Your task to perform on an android device: Search for "logitech g903" on ebay, select the first entry, and add it to the cart. Image 0: 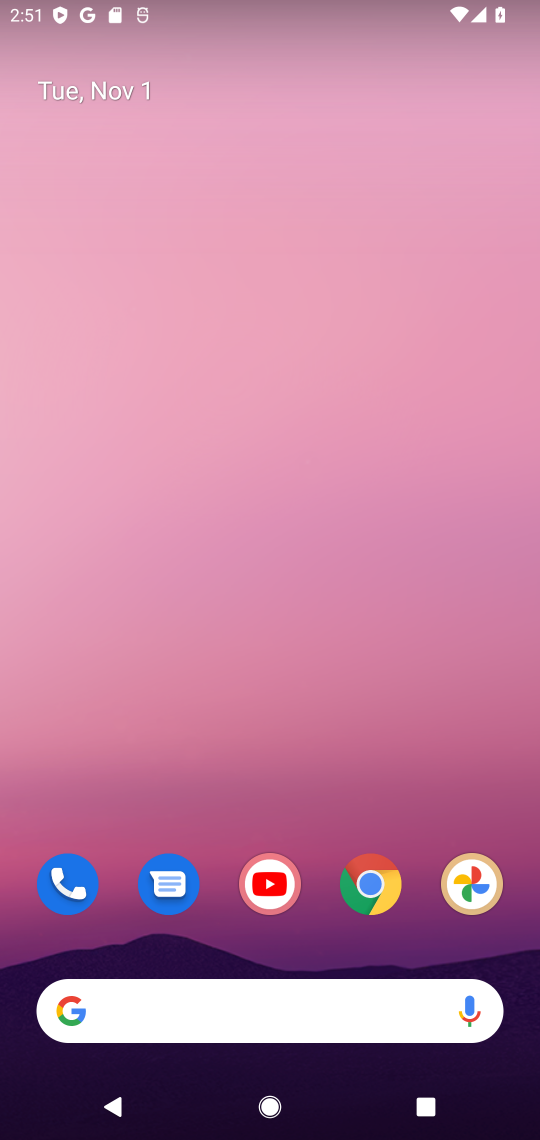
Step 0: drag from (247, 982) to (345, 95)
Your task to perform on an android device: Search for "logitech g903" on ebay, select the first entry, and add it to the cart. Image 1: 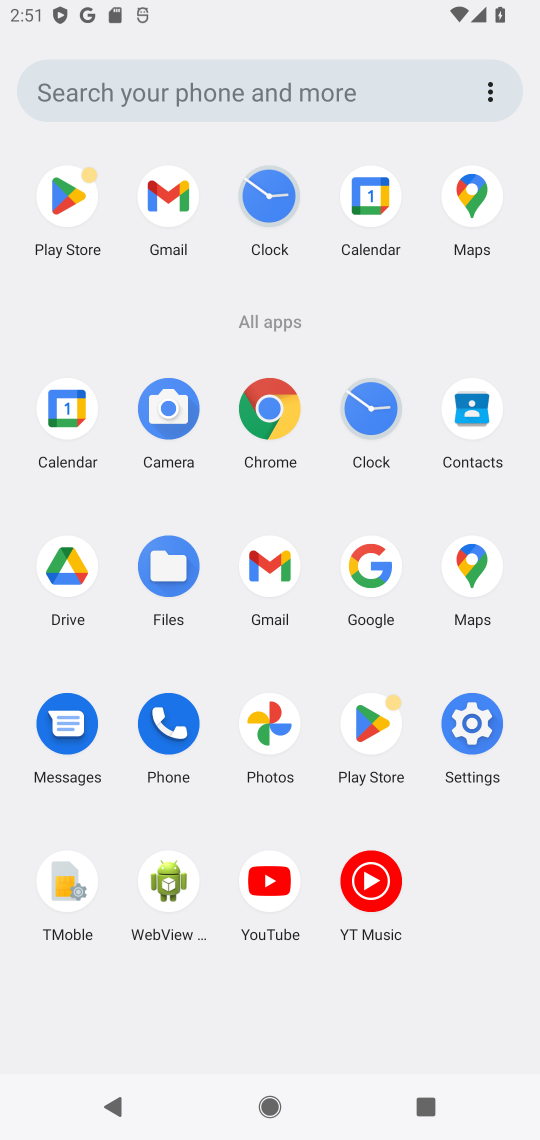
Step 1: click (284, 392)
Your task to perform on an android device: Search for "logitech g903" on ebay, select the first entry, and add it to the cart. Image 2: 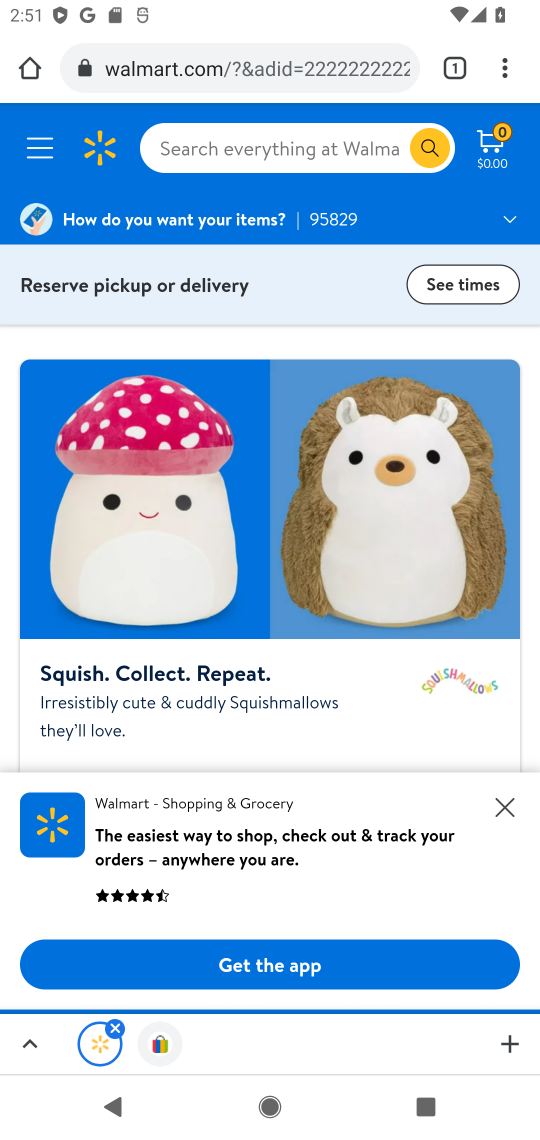
Step 2: click (242, 56)
Your task to perform on an android device: Search for "logitech g903" on ebay, select the first entry, and add it to the cart. Image 3: 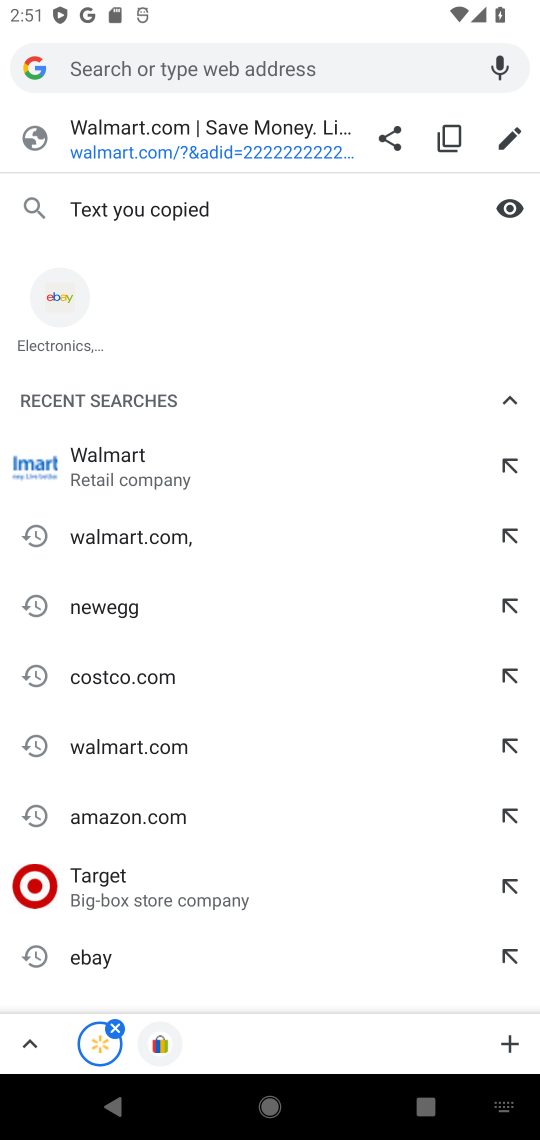
Step 3: type "ebay"
Your task to perform on an android device: Search for "logitech g903" on ebay, select the first entry, and add it to the cart. Image 4: 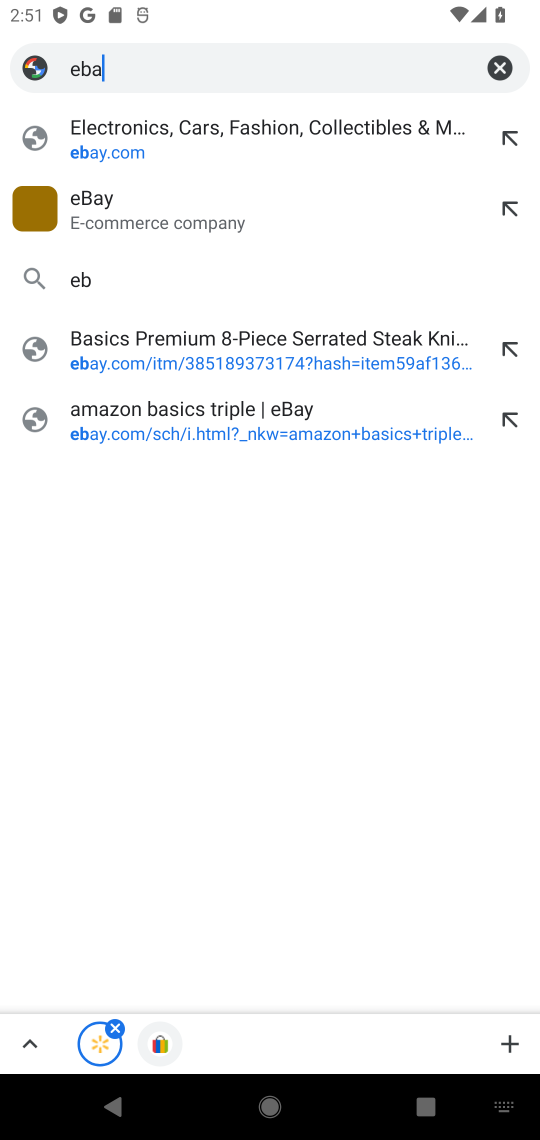
Step 4: press enter
Your task to perform on an android device: Search for "logitech g903" on ebay, select the first entry, and add it to the cart. Image 5: 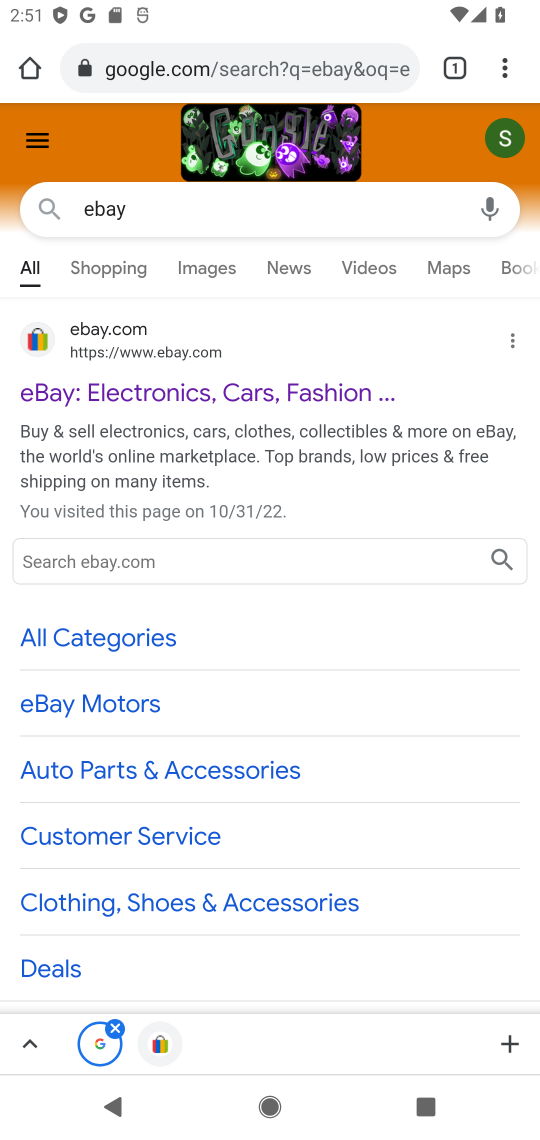
Step 5: click (166, 405)
Your task to perform on an android device: Search for "logitech g903" on ebay, select the first entry, and add it to the cart. Image 6: 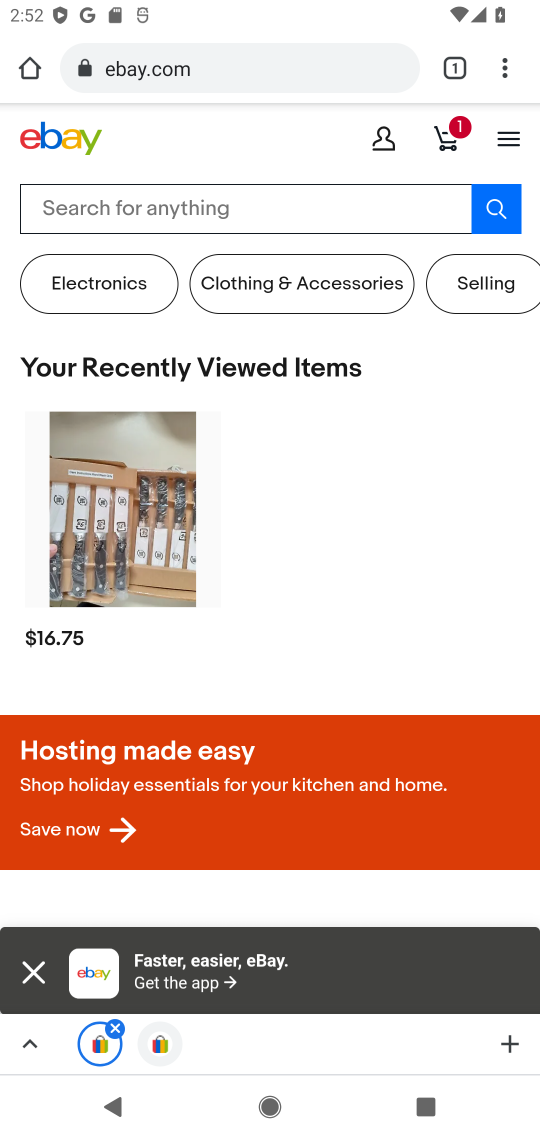
Step 6: click (95, 199)
Your task to perform on an android device: Search for "logitech g903" on ebay, select the first entry, and add it to the cart. Image 7: 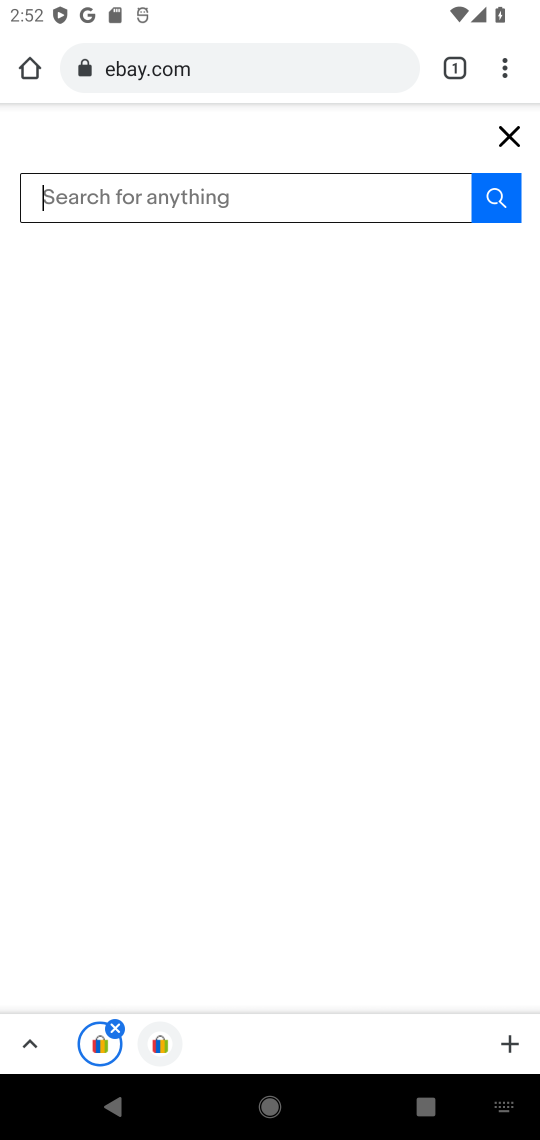
Step 7: type "logitech g903"
Your task to perform on an android device: Search for "logitech g903" on ebay, select the first entry, and add it to the cart. Image 8: 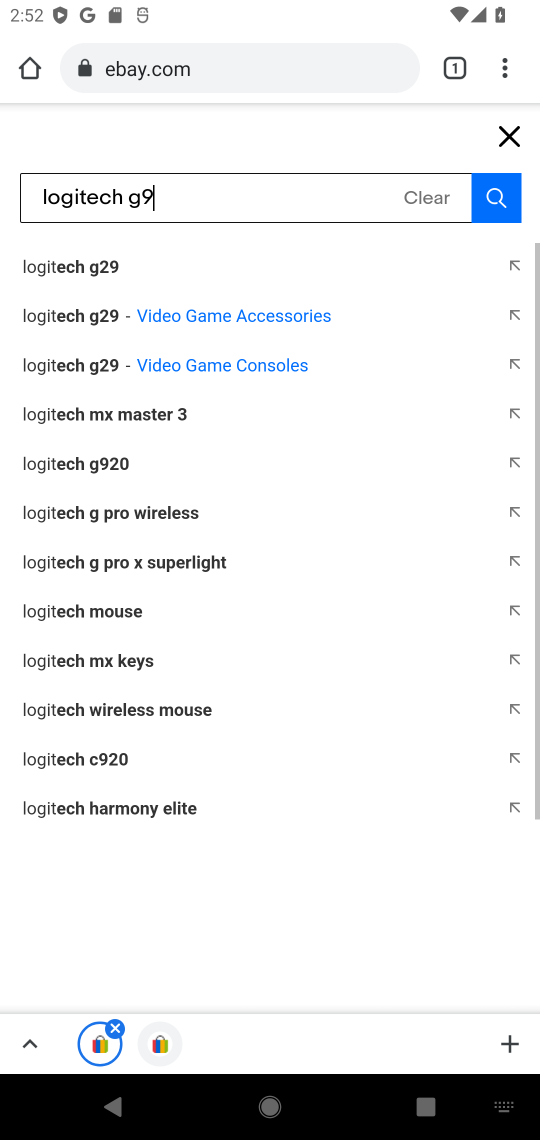
Step 8: press enter
Your task to perform on an android device: Search for "logitech g903" on ebay, select the first entry, and add it to the cart. Image 9: 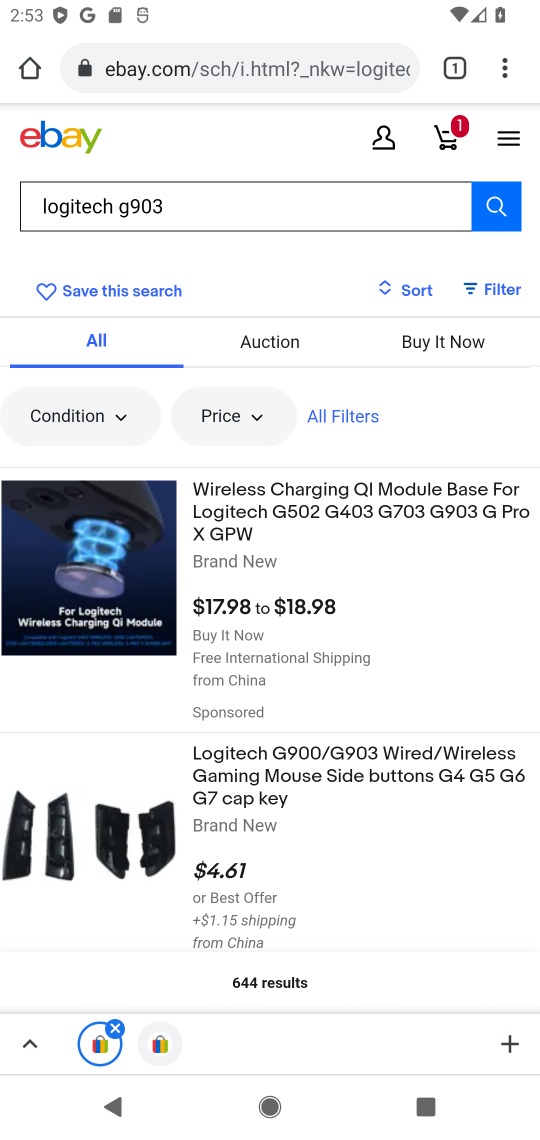
Step 9: click (264, 555)
Your task to perform on an android device: Search for "logitech g903" on ebay, select the first entry, and add it to the cart. Image 10: 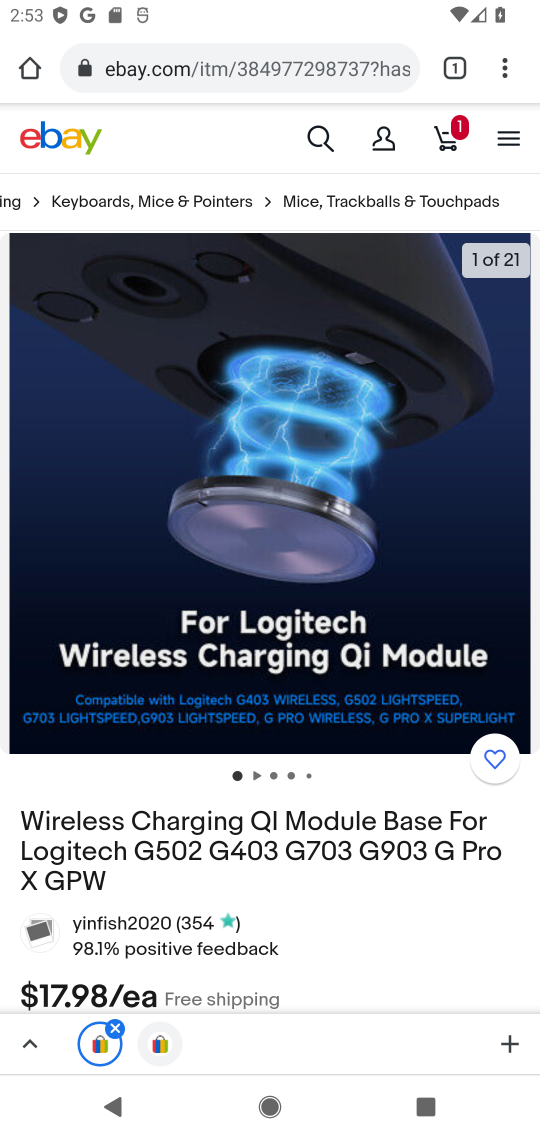
Step 10: drag from (290, 824) to (357, 367)
Your task to perform on an android device: Search for "logitech g903" on ebay, select the first entry, and add it to the cart. Image 11: 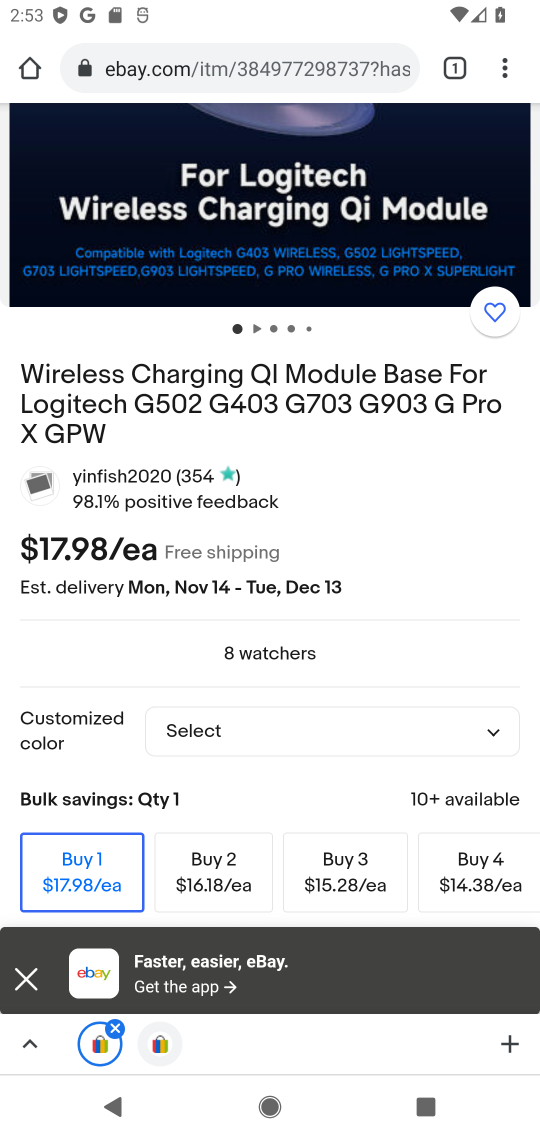
Step 11: drag from (311, 621) to (414, 242)
Your task to perform on an android device: Search for "logitech g903" on ebay, select the first entry, and add it to the cart. Image 12: 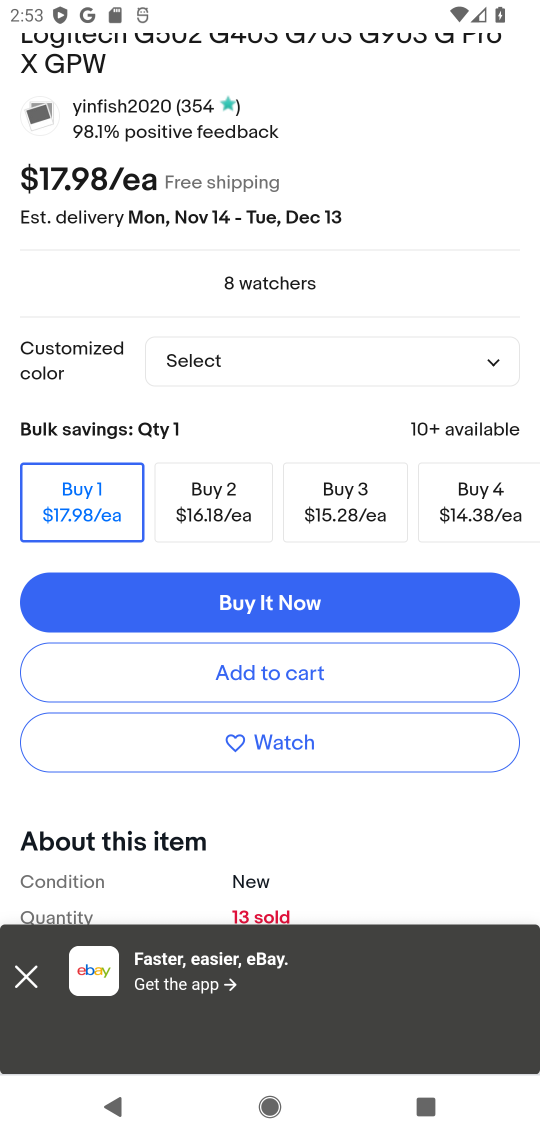
Step 12: click (217, 663)
Your task to perform on an android device: Search for "logitech g903" on ebay, select the first entry, and add it to the cart. Image 13: 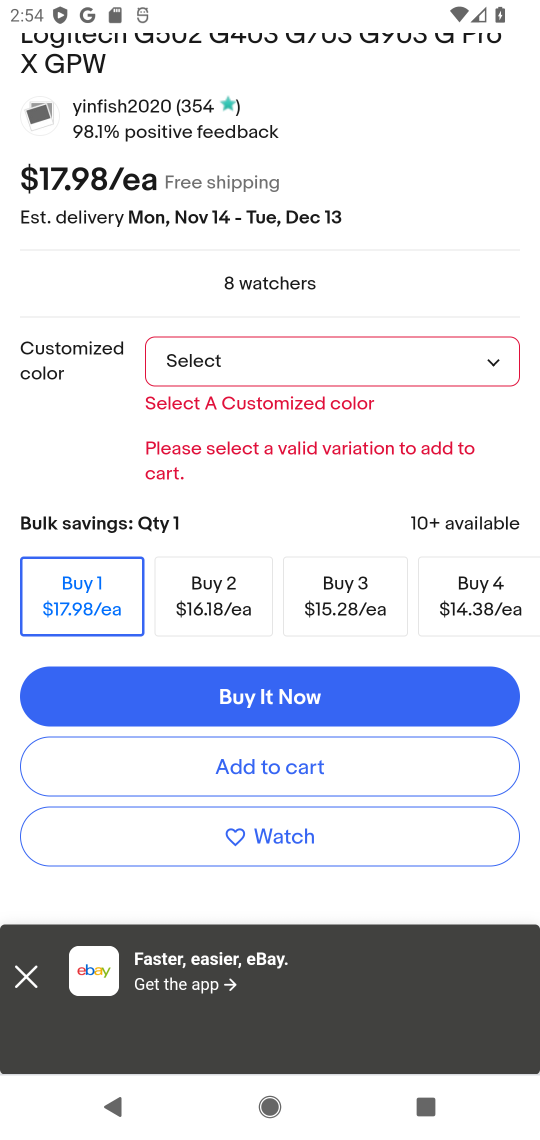
Step 13: click (280, 774)
Your task to perform on an android device: Search for "logitech g903" on ebay, select the first entry, and add it to the cart. Image 14: 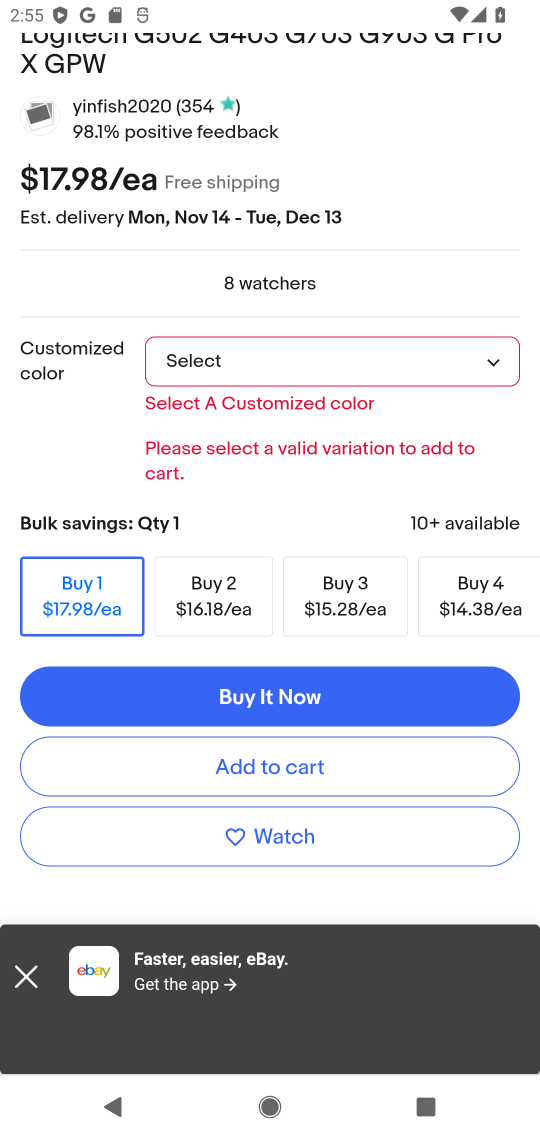
Step 14: click (309, 775)
Your task to perform on an android device: Search for "logitech g903" on ebay, select the first entry, and add it to the cart. Image 15: 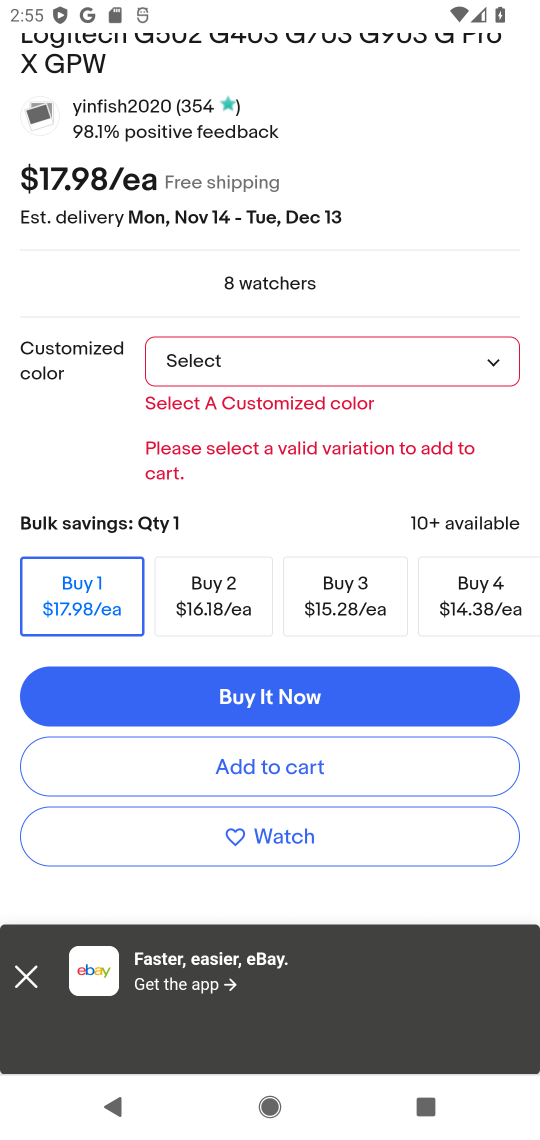
Step 15: click (201, 757)
Your task to perform on an android device: Search for "logitech g903" on ebay, select the first entry, and add it to the cart. Image 16: 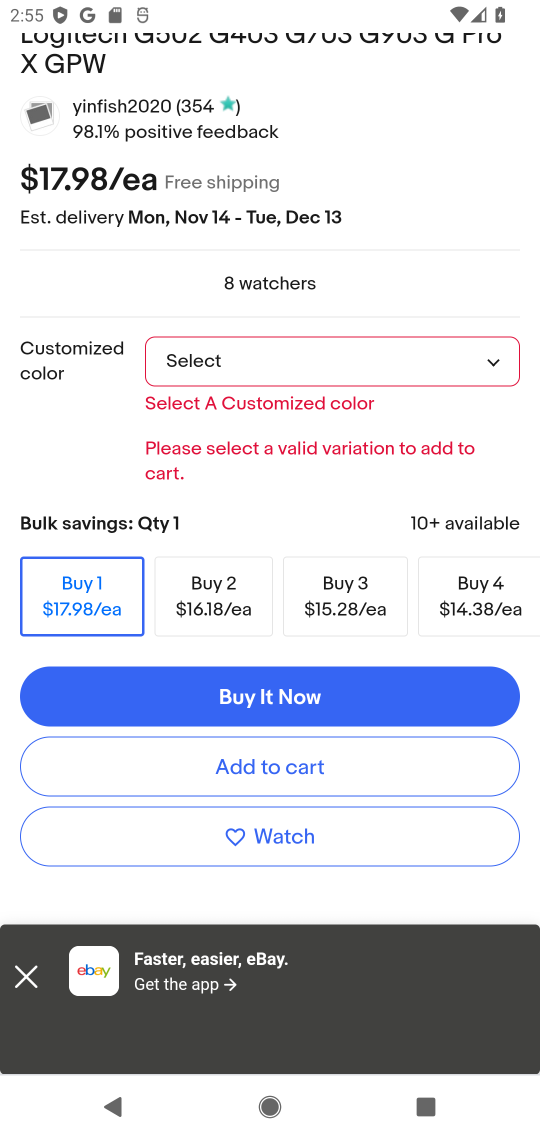
Step 16: click (209, 764)
Your task to perform on an android device: Search for "logitech g903" on ebay, select the first entry, and add it to the cart. Image 17: 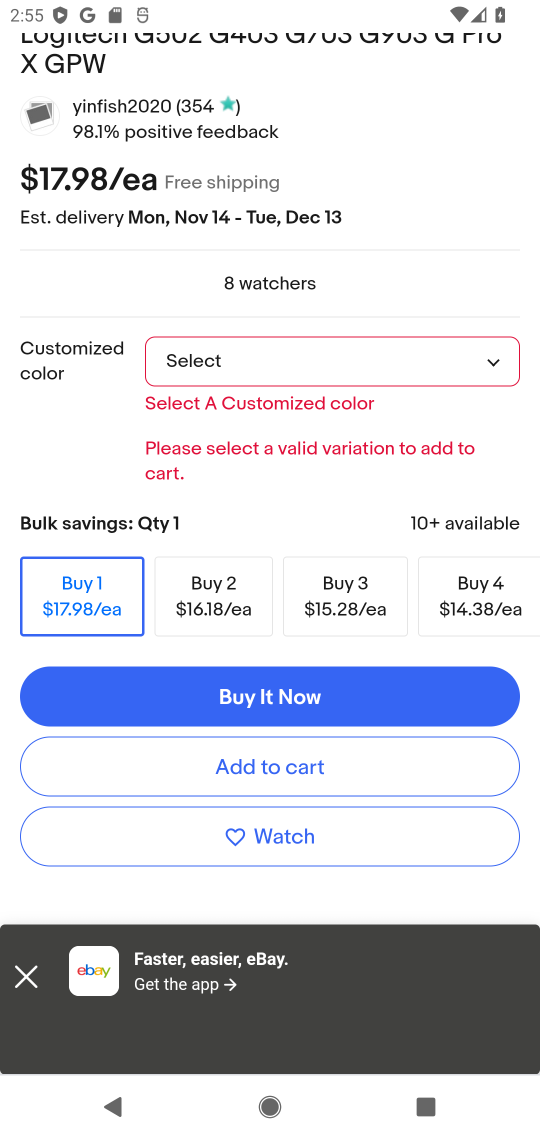
Step 17: click (209, 762)
Your task to perform on an android device: Search for "logitech g903" on ebay, select the first entry, and add it to the cart. Image 18: 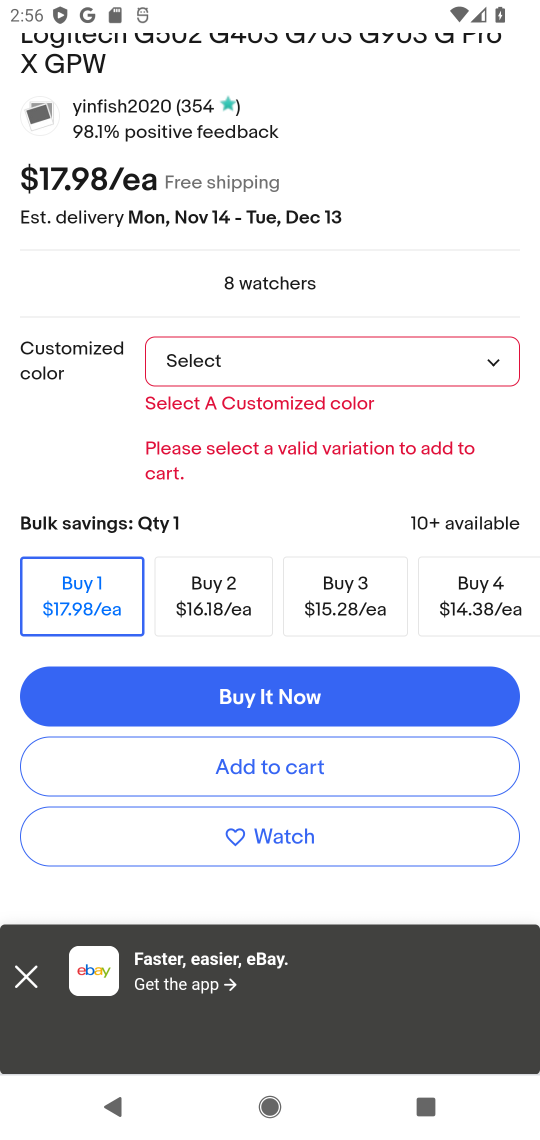
Step 18: click (193, 763)
Your task to perform on an android device: Search for "logitech g903" on ebay, select the first entry, and add it to the cart. Image 19: 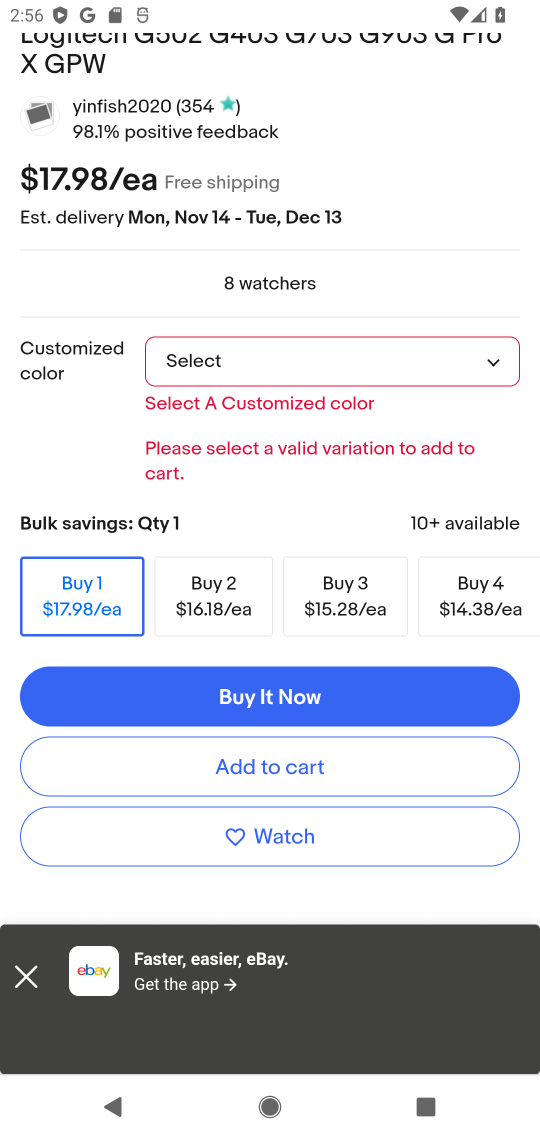
Step 19: click (193, 762)
Your task to perform on an android device: Search for "logitech g903" on ebay, select the first entry, and add it to the cart. Image 20: 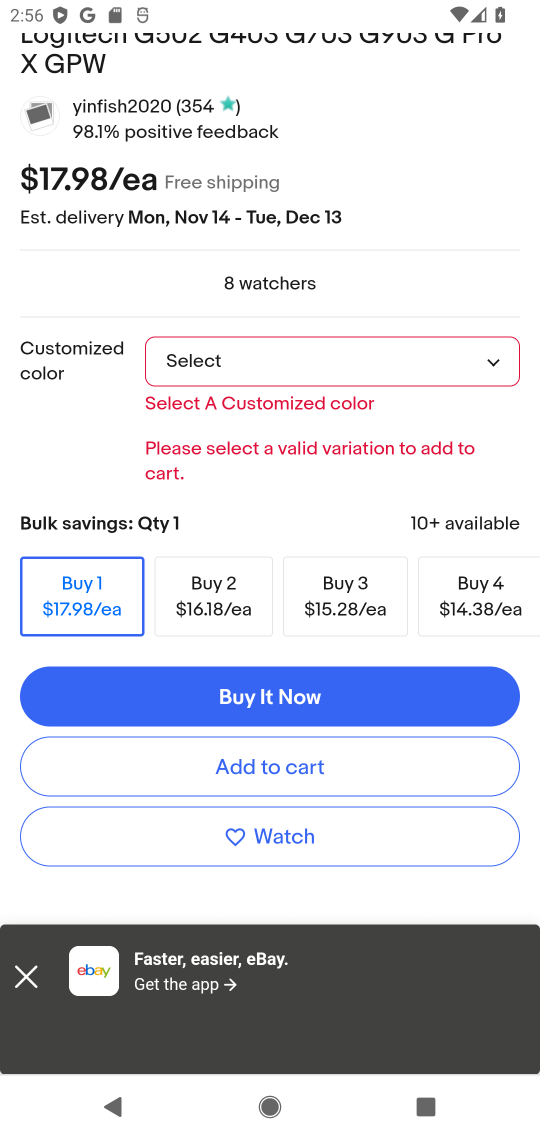
Step 20: click (193, 759)
Your task to perform on an android device: Search for "logitech g903" on ebay, select the first entry, and add it to the cart. Image 21: 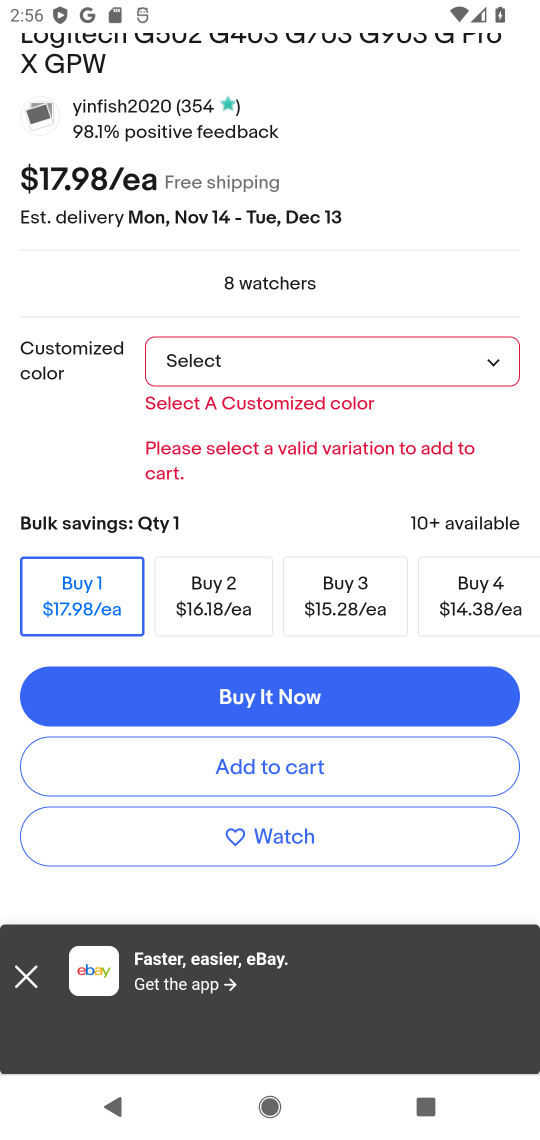
Step 21: task complete